Your task to perform on an android device: move an email to a new category in the gmail app Image 0: 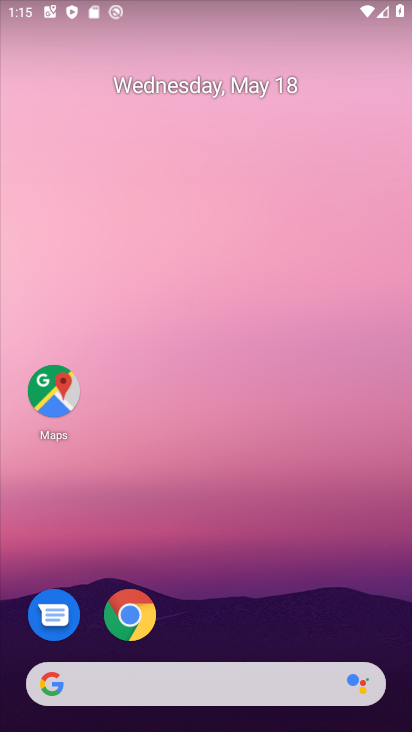
Step 0: drag from (321, 613) to (280, 15)
Your task to perform on an android device: move an email to a new category in the gmail app Image 1: 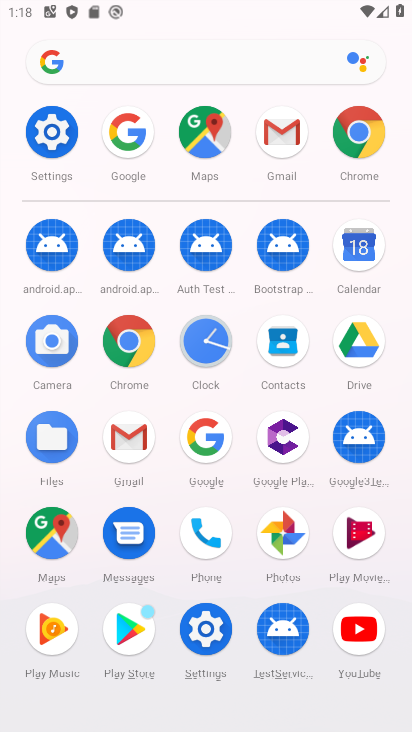
Step 1: click (117, 455)
Your task to perform on an android device: move an email to a new category in the gmail app Image 2: 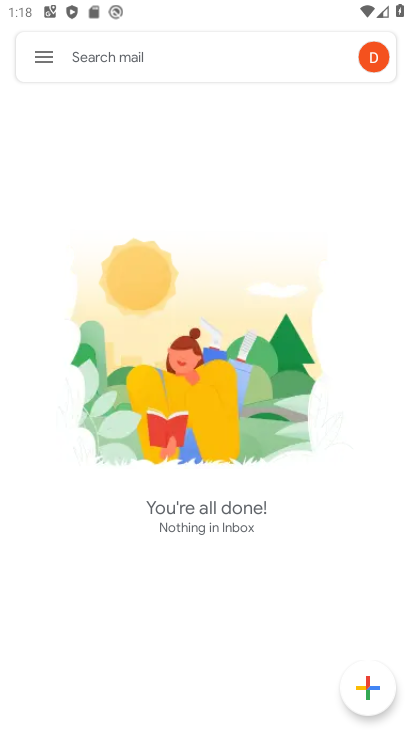
Step 2: task complete